Your task to perform on an android device: Search for pizza restaurants on Maps Image 0: 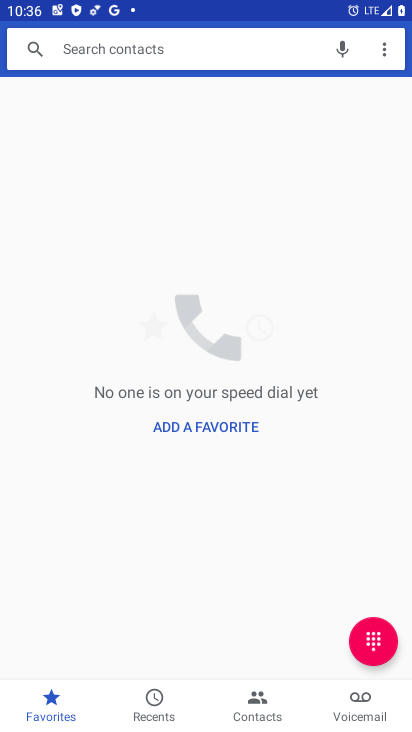
Step 0: press home button
Your task to perform on an android device: Search for pizza restaurants on Maps Image 1: 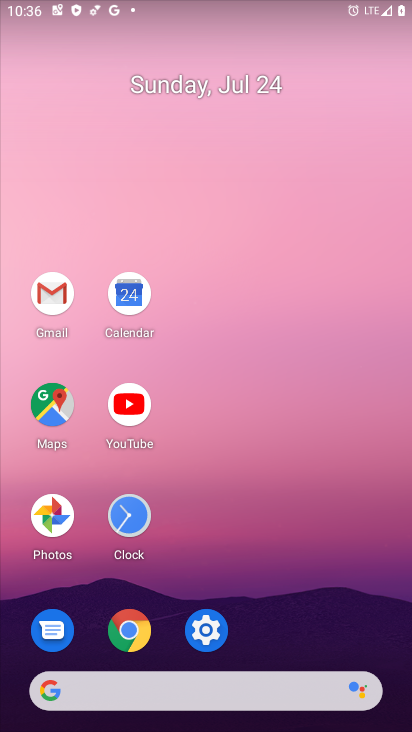
Step 1: click (56, 405)
Your task to perform on an android device: Search for pizza restaurants on Maps Image 2: 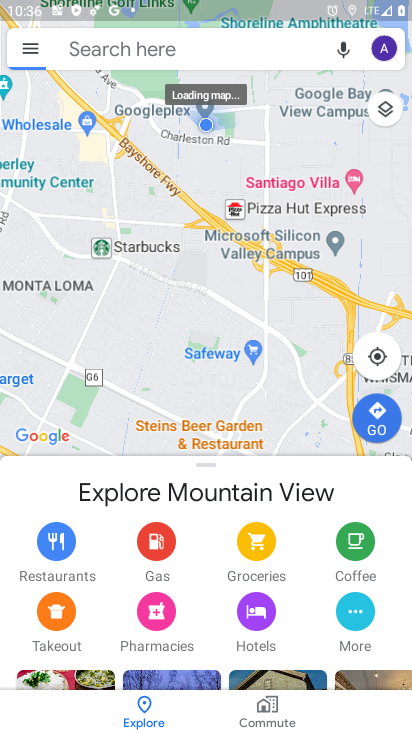
Step 2: click (121, 44)
Your task to perform on an android device: Search for pizza restaurants on Maps Image 3: 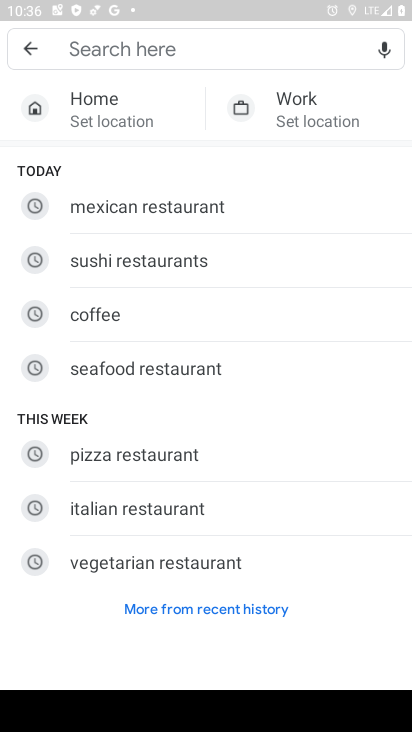
Step 3: click (113, 451)
Your task to perform on an android device: Search for pizza restaurants on Maps Image 4: 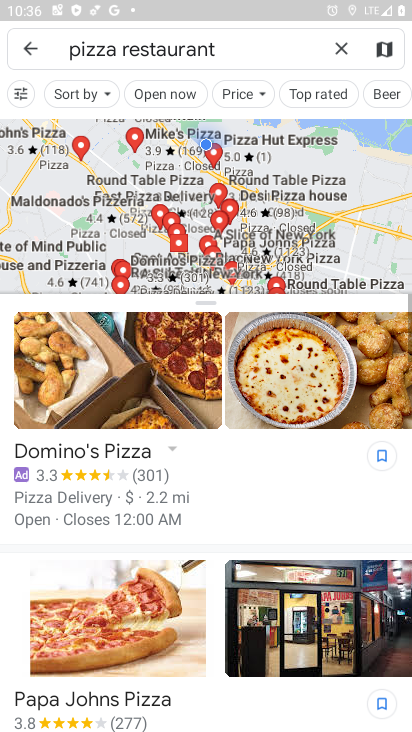
Step 4: task complete